Your task to perform on an android device: create a new album in the google photos Image 0: 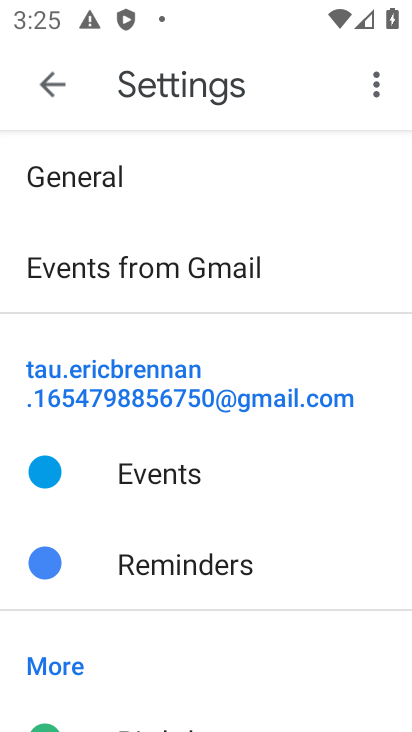
Step 0: press home button
Your task to perform on an android device: create a new album in the google photos Image 1: 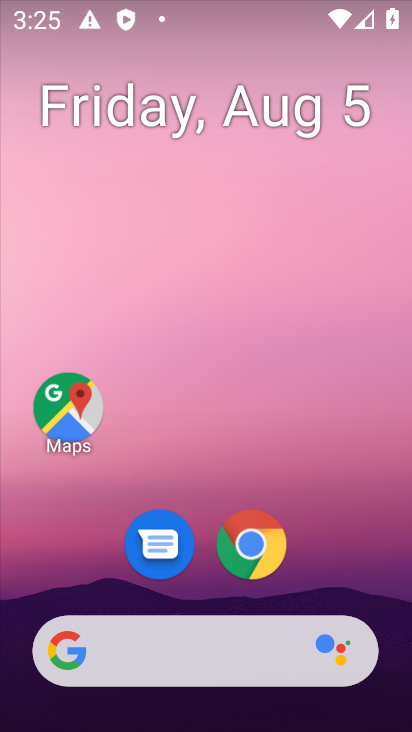
Step 1: drag from (223, 618) to (180, 189)
Your task to perform on an android device: create a new album in the google photos Image 2: 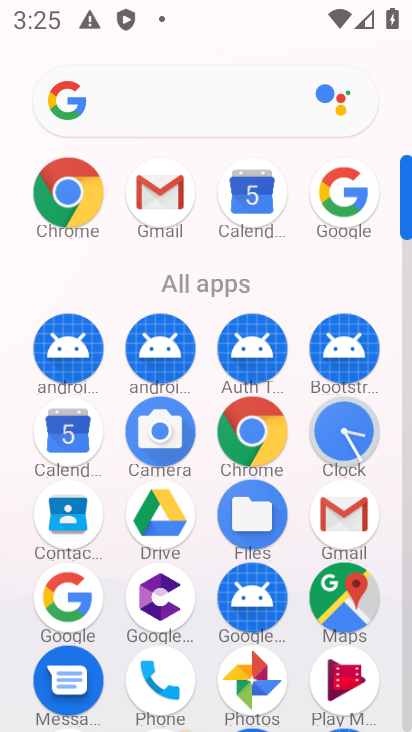
Step 2: click (252, 684)
Your task to perform on an android device: create a new album in the google photos Image 3: 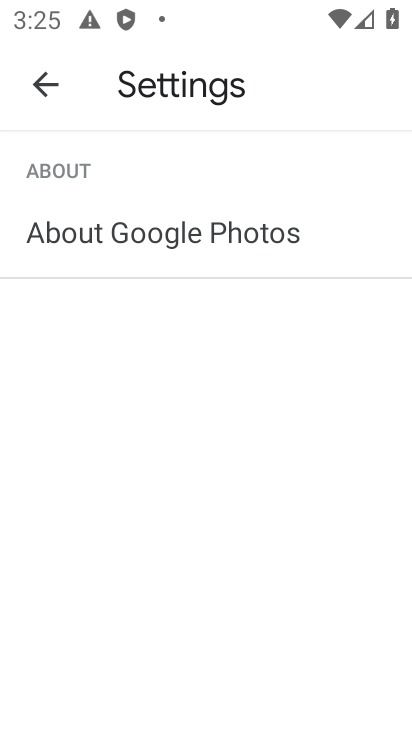
Step 3: click (55, 91)
Your task to perform on an android device: create a new album in the google photos Image 4: 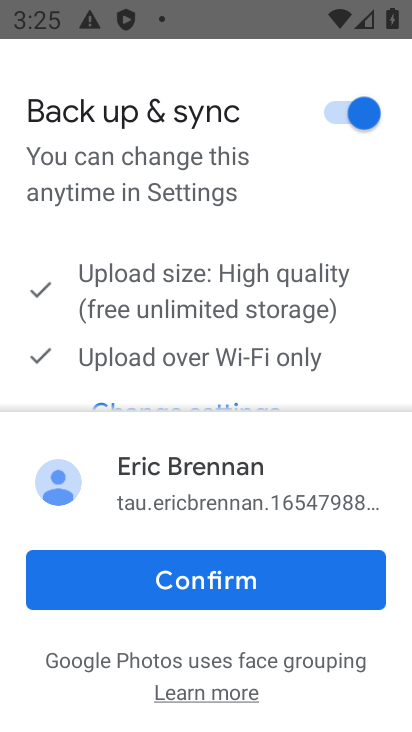
Step 4: click (202, 583)
Your task to perform on an android device: create a new album in the google photos Image 5: 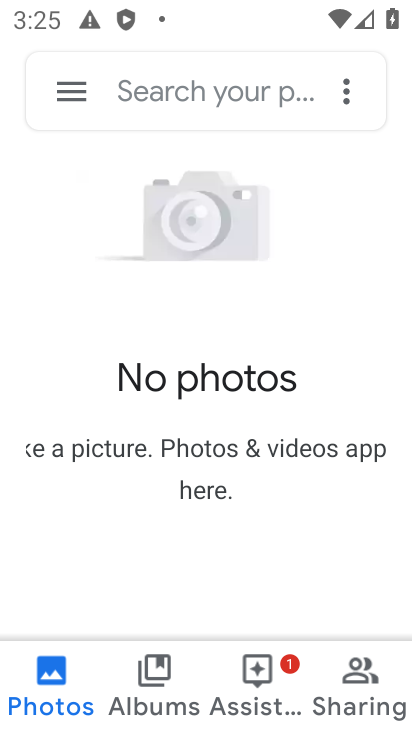
Step 5: task complete